Your task to perform on an android device: change text size in settings app Image 0: 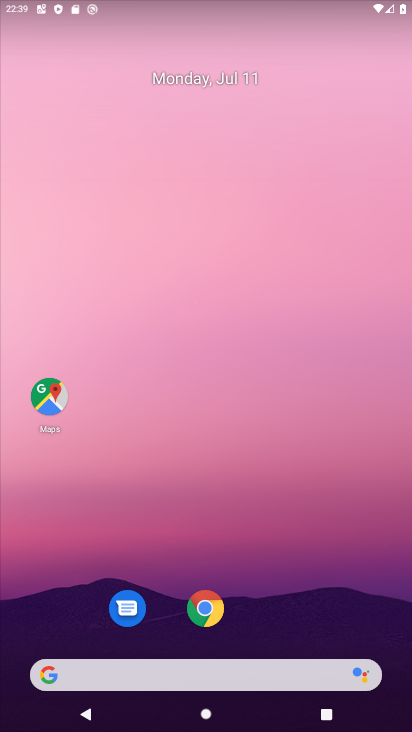
Step 0: drag from (17, 706) to (327, 0)
Your task to perform on an android device: change text size in settings app Image 1: 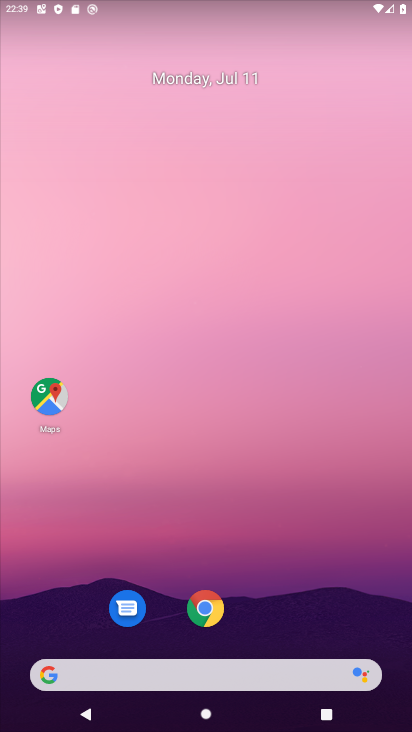
Step 1: drag from (25, 715) to (176, 89)
Your task to perform on an android device: change text size in settings app Image 2: 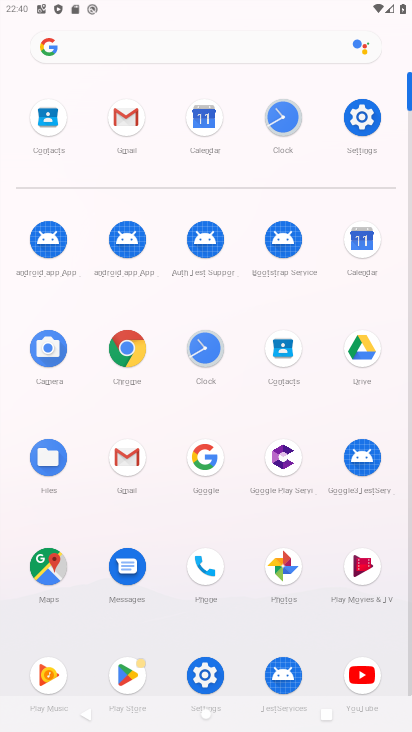
Step 2: click (200, 673)
Your task to perform on an android device: change text size in settings app Image 3: 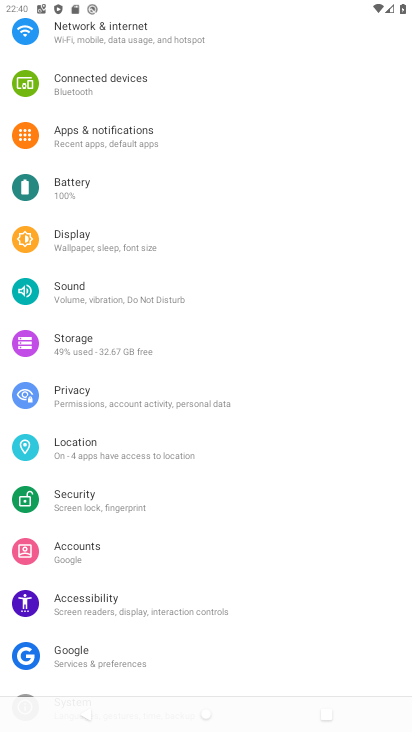
Step 3: click (105, 243)
Your task to perform on an android device: change text size in settings app Image 4: 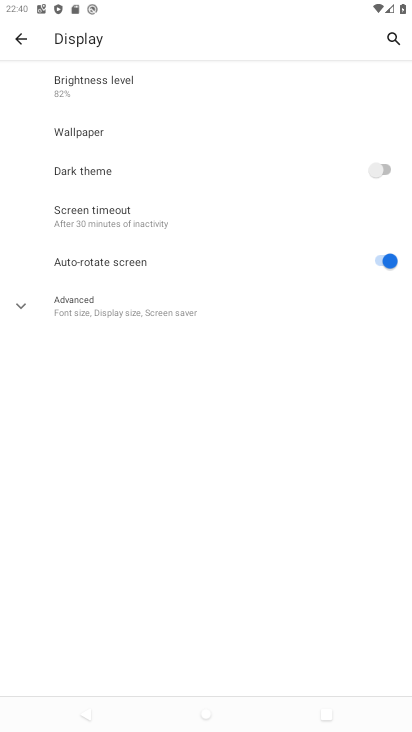
Step 4: click (94, 300)
Your task to perform on an android device: change text size in settings app Image 5: 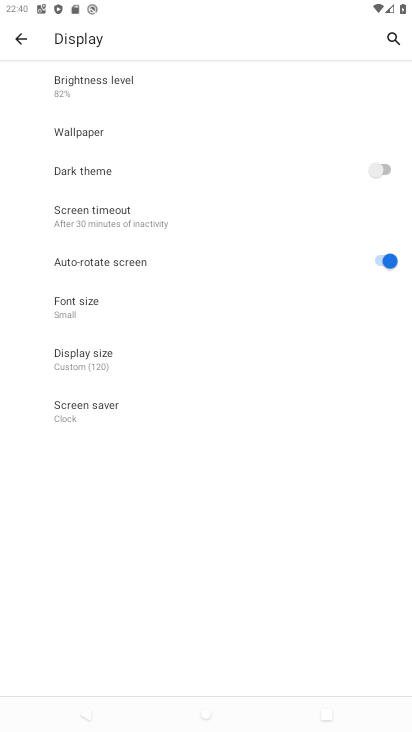
Step 5: click (95, 311)
Your task to perform on an android device: change text size in settings app Image 6: 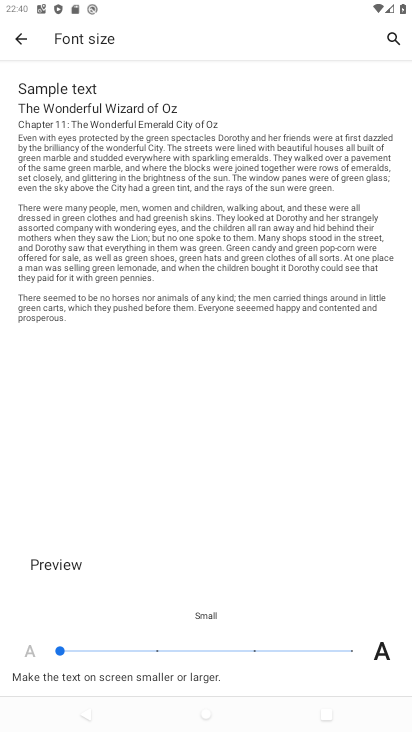
Step 6: click (154, 646)
Your task to perform on an android device: change text size in settings app Image 7: 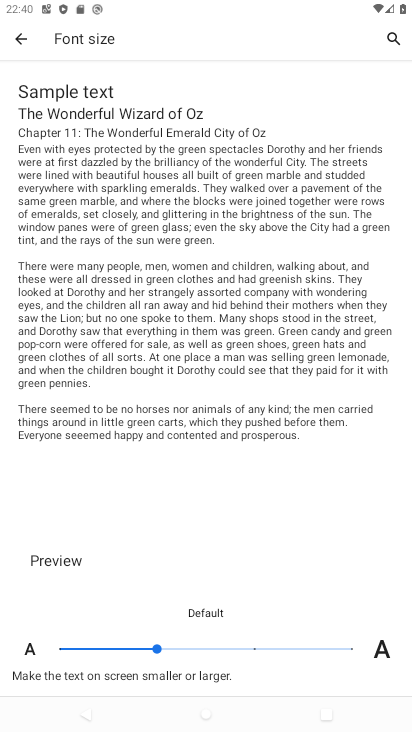
Step 7: task complete